Your task to perform on an android device: Is it going to rain tomorrow? Image 0: 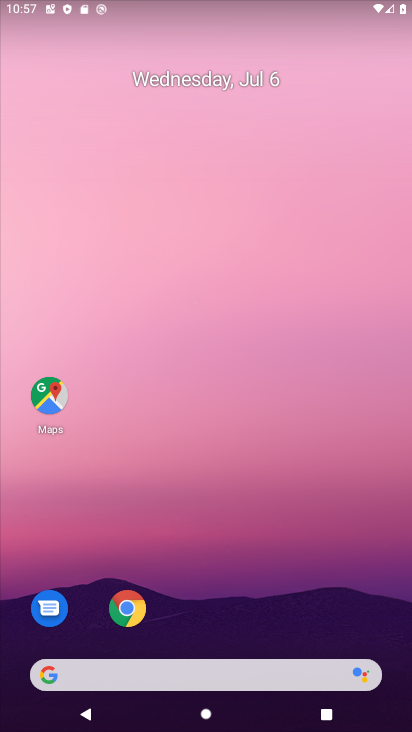
Step 0: drag from (217, 641) to (231, 331)
Your task to perform on an android device: Is it going to rain tomorrow? Image 1: 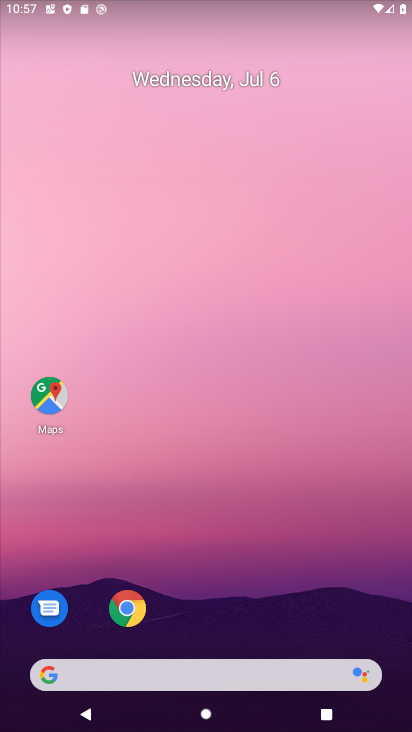
Step 1: drag from (174, 648) to (174, 313)
Your task to perform on an android device: Is it going to rain tomorrow? Image 2: 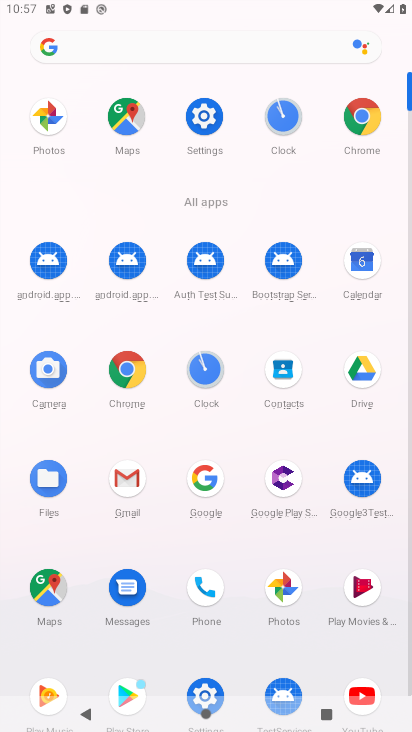
Step 2: click (206, 475)
Your task to perform on an android device: Is it going to rain tomorrow? Image 3: 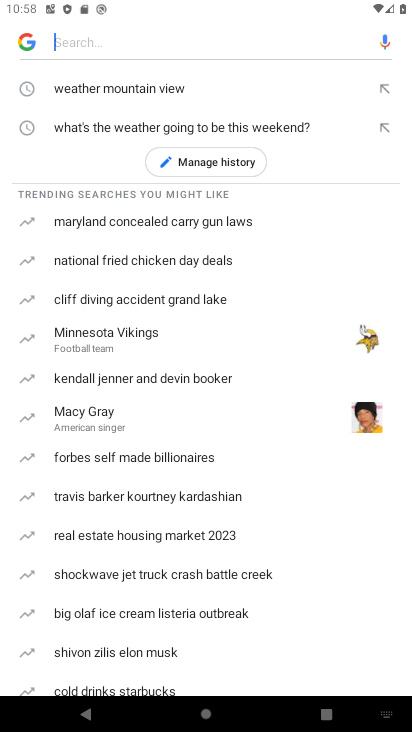
Step 3: type "is it going rain tomorrow"
Your task to perform on an android device: Is it going to rain tomorrow? Image 4: 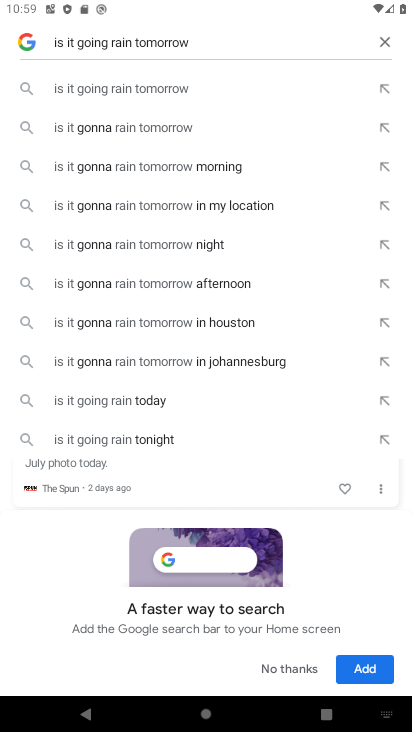
Step 4: click (136, 90)
Your task to perform on an android device: Is it going to rain tomorrow? Image 5: 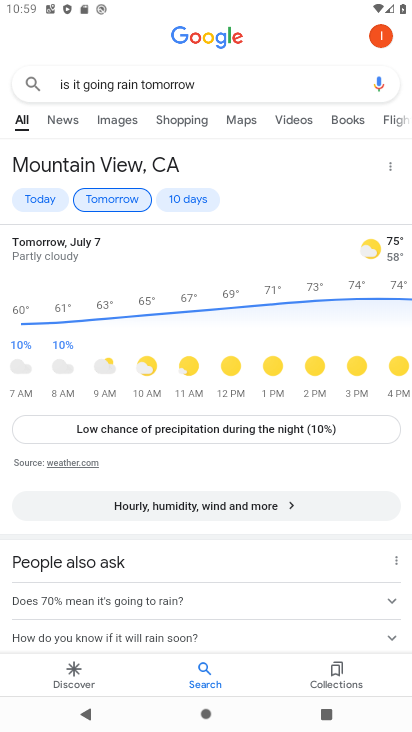
Step 5: task complete